Your task to perform on an android device: turn notification dots off Image 0: 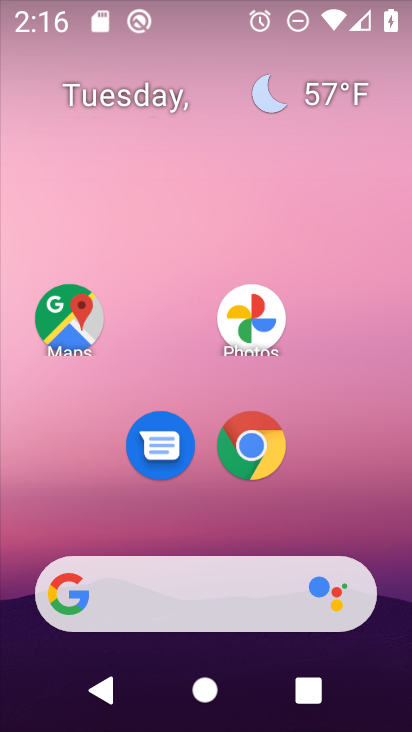
Step 0: drag from (389, 536) to (368, 146)
Your task to perform on an android device: turn notification dots off Image 1: 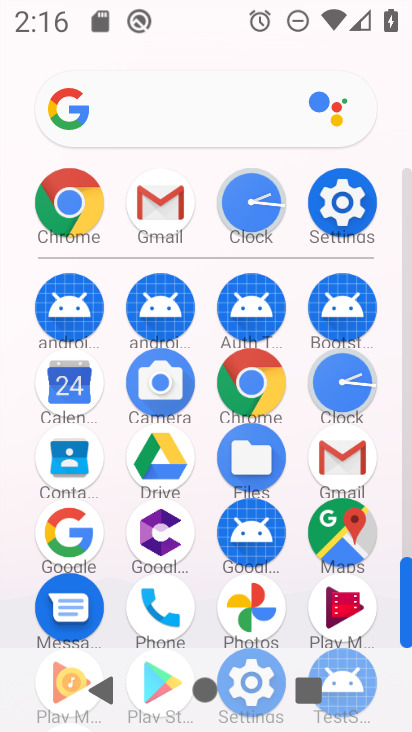
Step 1: click (338, 228)
Your task to perform on an android device: turn notification dots off Image 2: 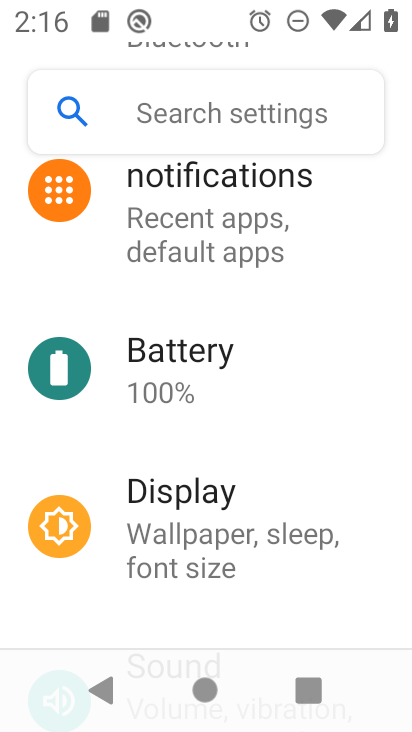
Step 2: drag from (362, 533) to (334, 305)
Your task to perform on an android device: turn notification dots off Image 3: 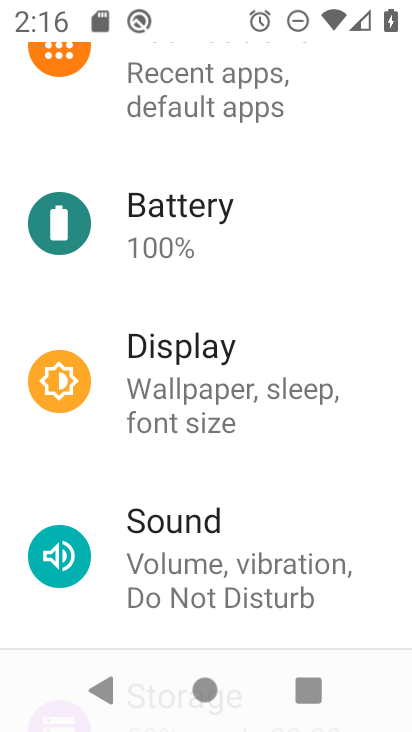
Step 3: drag from (359, 522) to (345, 335)
Your task to perform on an android device: turn notification dots off Image 4: 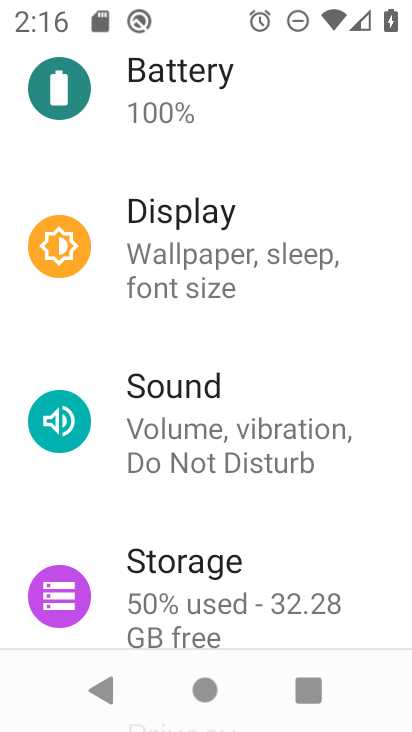
Step 4: drag from (372, 579) to (349, 399)
Your task to perform on an android device: turn notification dots off Image 5: 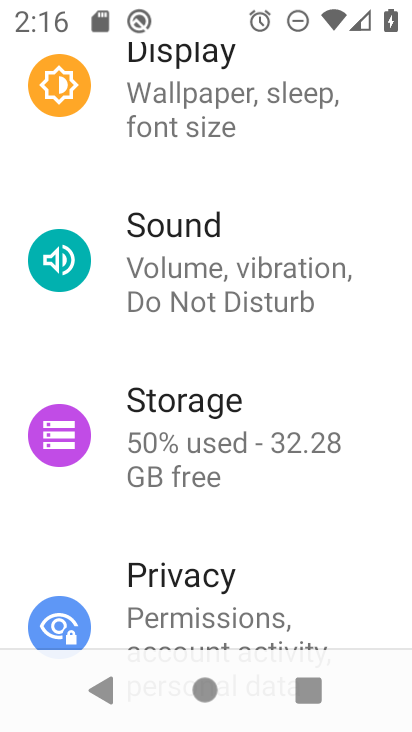
Step 5: drag from (349, 628) to (346, 455)
Your task to perform on an android device: turn notification dots off Image 6: 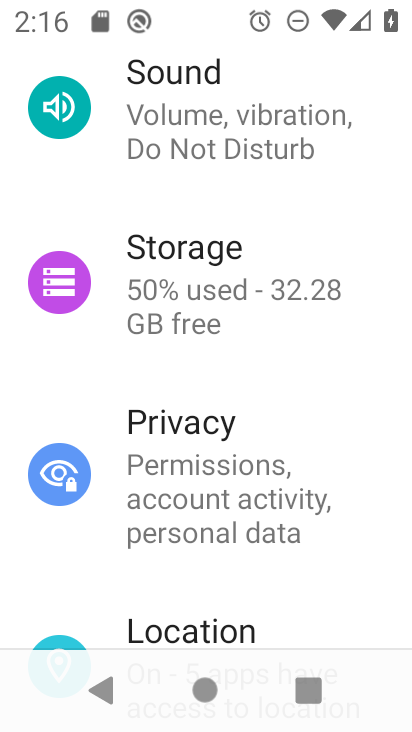
Step 6: drag from (375, 611) to (373, 465)
Your task to perform on an android device: turn notification dots off Image 7: 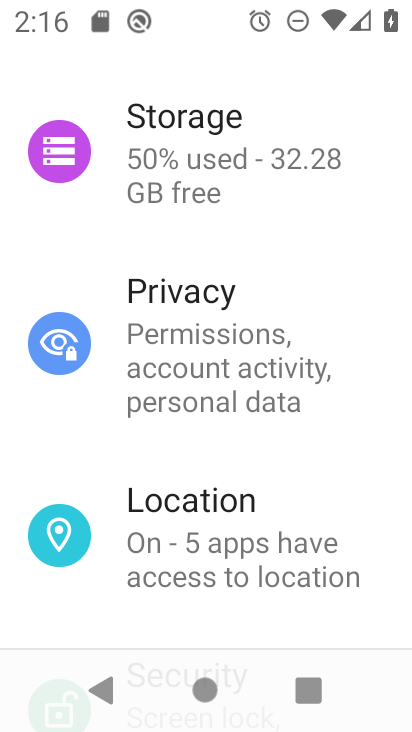
Step 7: drag from (374, 620) to (365, 463)
Your task to perform on an android device: turn notification dots off Image 8: 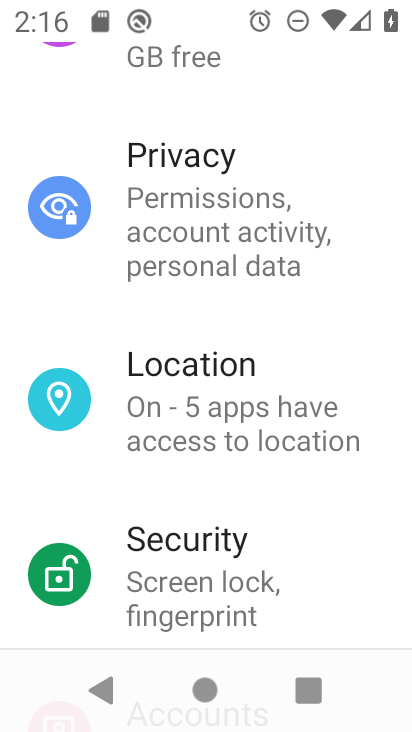
Step 8: drag from (354, 323) to (367, 498)
Your task to perform on an android device: turn notification dots off Image 9: 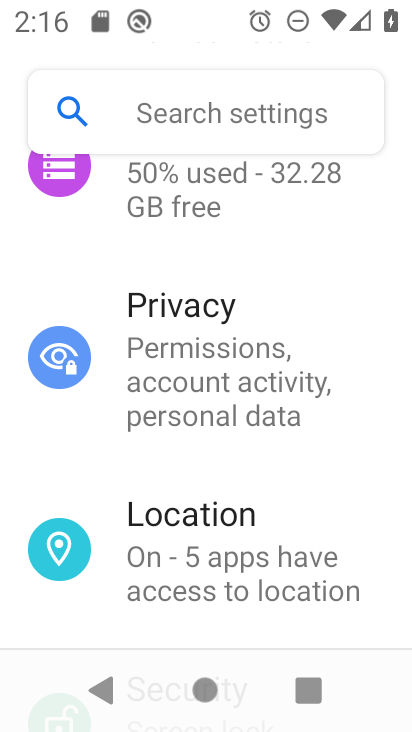
Step 9: drag from (372, 331) to (357, 474)
Your task to perform on an android device: turn notification dots off Image 10: 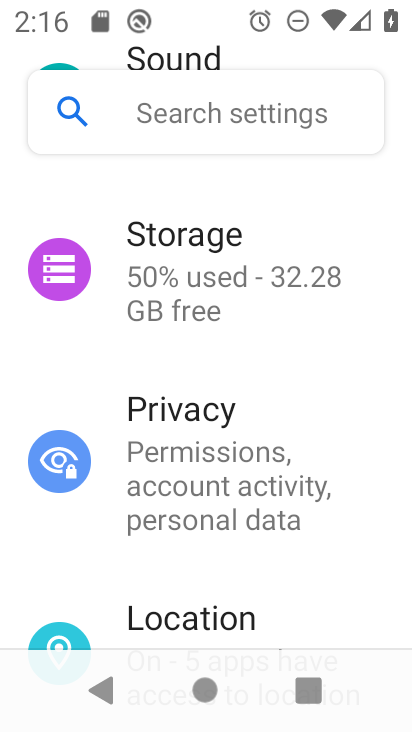
Step 10: drag from (357, 308) to (355, 418)
Your task to perform on an android device: turn notification dots off Image 11: 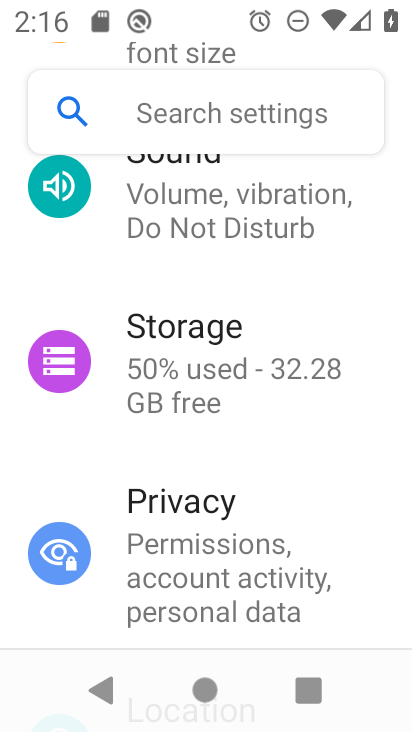
Step 11: drag from (355, 300) to (356, 441)
Your task to perform on an android device: turn notification dots off Image 12: 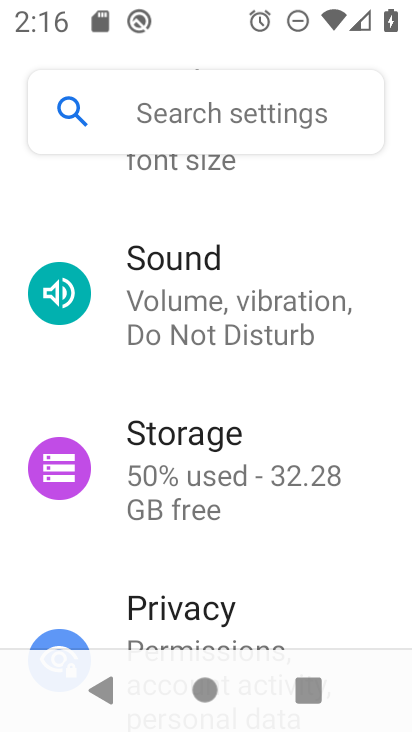
Step 12: drag from (359, 265) to (368, 412)
Your task to perform on an android device: turn notification dots off Image 13: 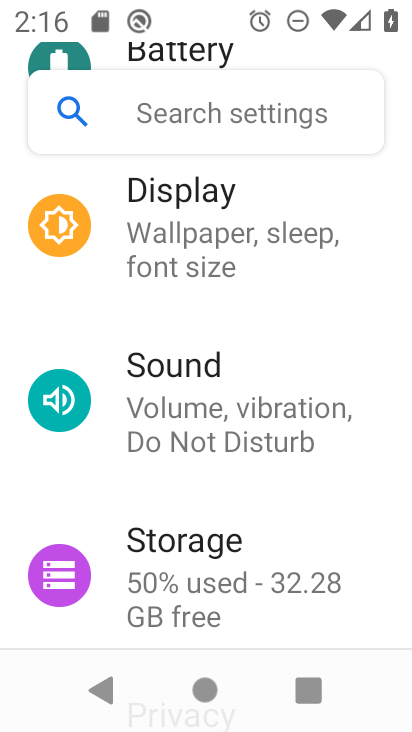
Step 13: drag from (365, 279) to (363, 409)
Your task to perform on an android device: turn notification dots off Image 14: 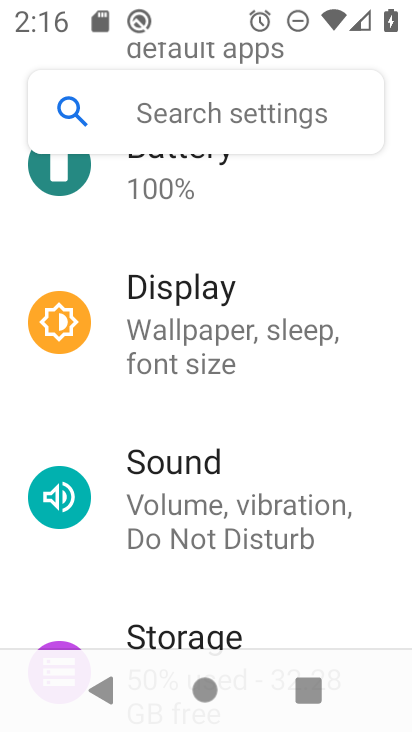
Step 14: drag from (366, 276) to (362, 402)
Your task to perform on an android device: turn notification dots off Image 15: 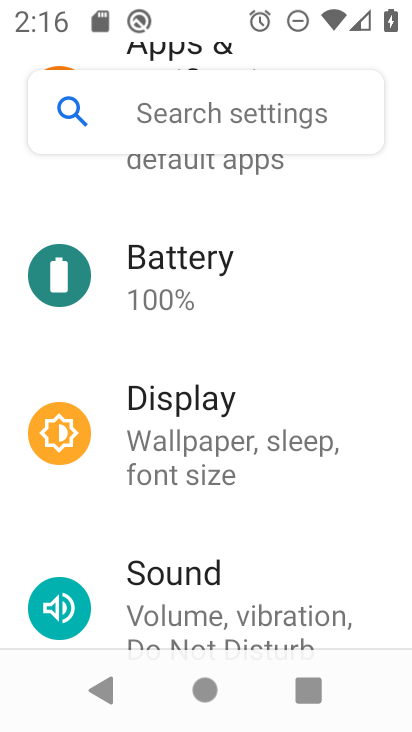
Step 15: drag from (348, 296) to (347, 453)
Your task to perform on an android device: turn notification dots off Image 16: 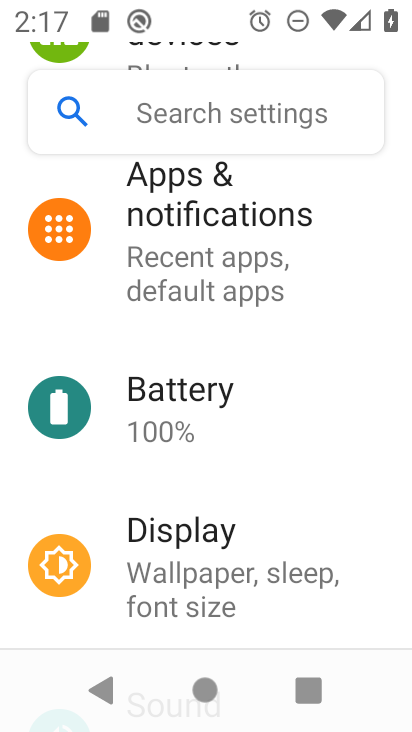
Step 16: click (288, 218)
Your task to perform on an android device: turn notification dots off Image 17: 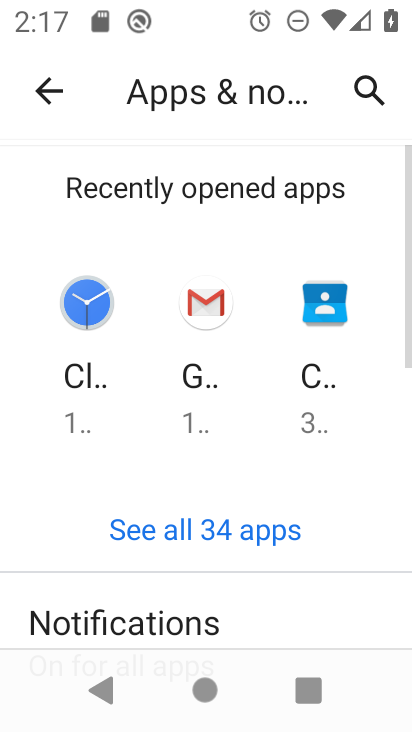
Step 17: drag from (301, 614) to (302, 344)
Your task to perform on an android device: turn notification dots off Image 18: 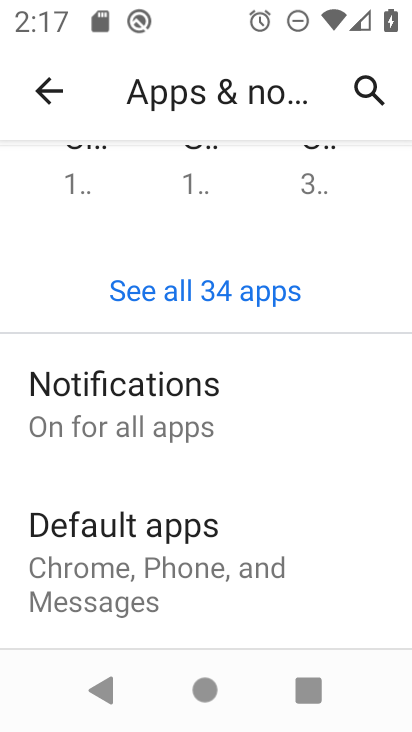
Step 18: drag from (306, 583) to (299, 466)
Your task to perform on an android device: turn notification dots off Image 19: 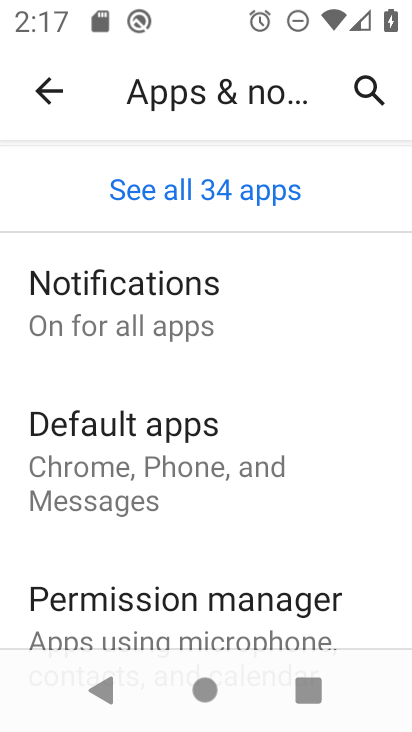
Step 19: click (200, 327)
Your task to perform on an android device: turn notification dots off Image 20: 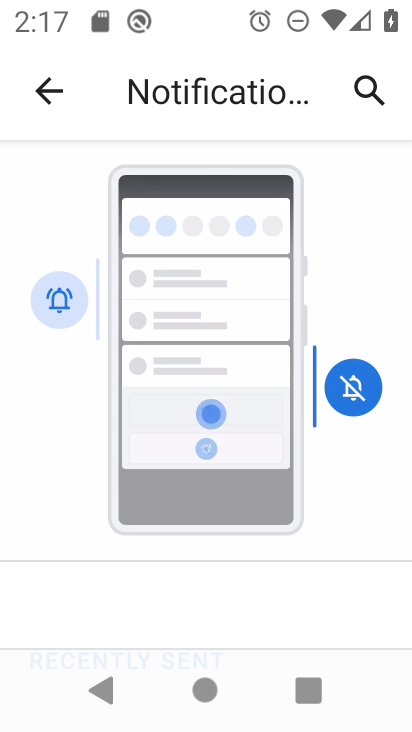
Step 20: drag from (357, 593) to (357, 375)
Your task to perform on an android device: turn notification dots off Image 21: 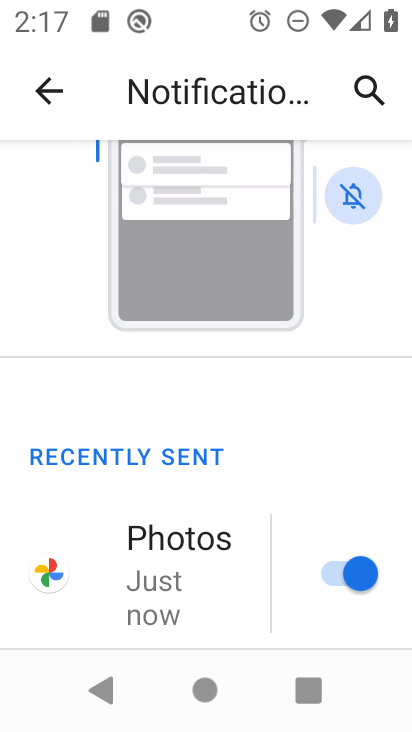
Step 21: drag from (320, 635) to (292, 439)
Your task to perform on an android device: turn notification dots off Image 22: 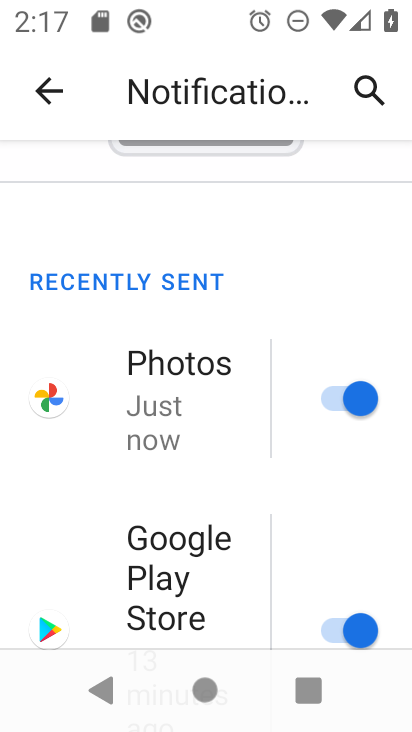
Step 22: drag from (290, 597) to (275, 443)
Your task to perform on an android device: turn notification dots off Image 23: 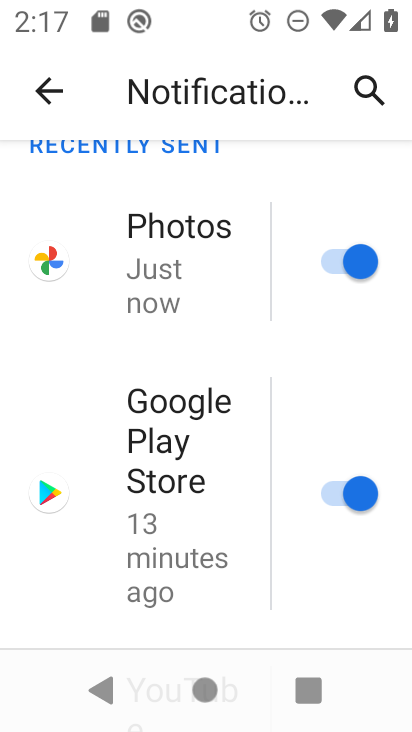
Step 23: drag from (285, 610) to (287, 465)
Your task to perform on an android device: turn notification dots off Image 24: 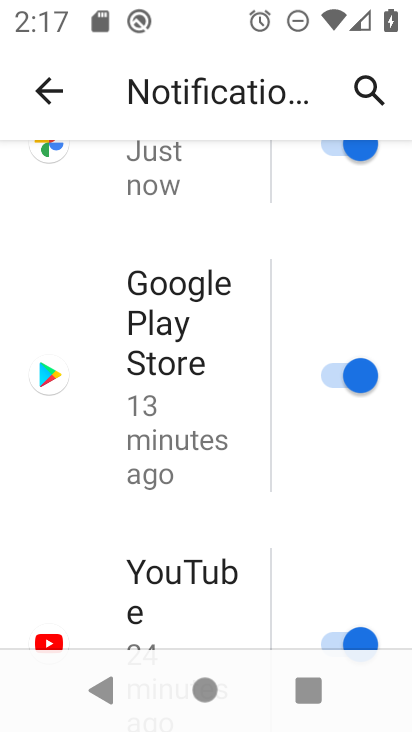
Step 24: drag from (296, 618) to (285, 465)
Your task to perform on an android device: turn notification dots off Image 25: 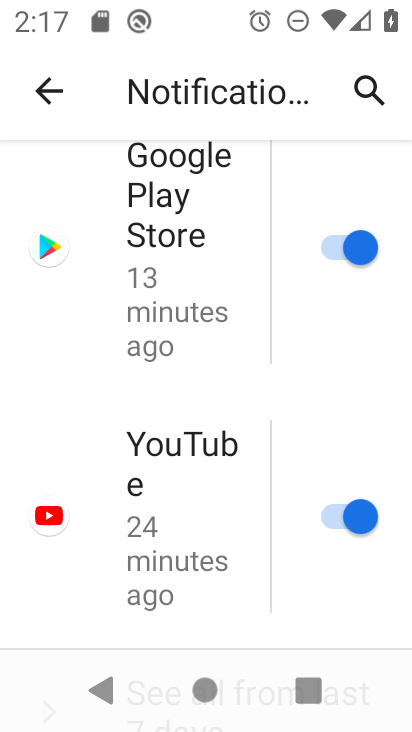
Step 25: drag from (280, 615) to (266, 453)
Your task to perform on an android device: turn notification dots off Image 26: 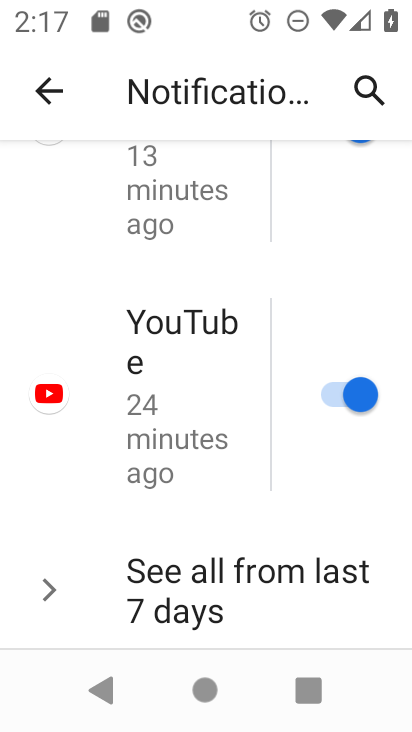
Step 26: drag from (256, 639) to (254, 463)
Your task to perform on an android device: turn notification dots off Image 27: 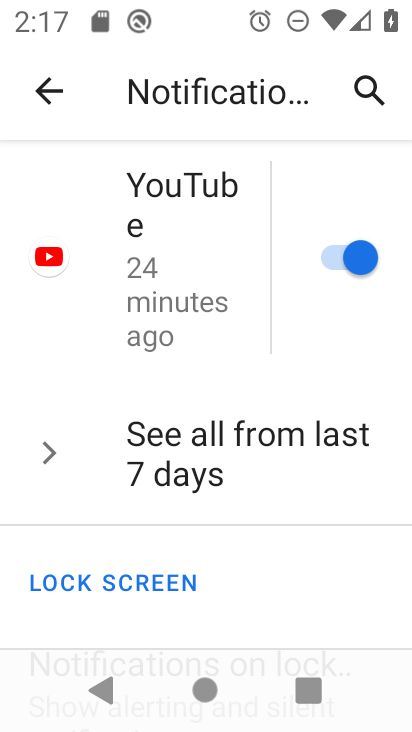
Step 27: drag from (264, 631) to (265, 496)
Your task to perform on an android device: turn notification dots off Image 28: 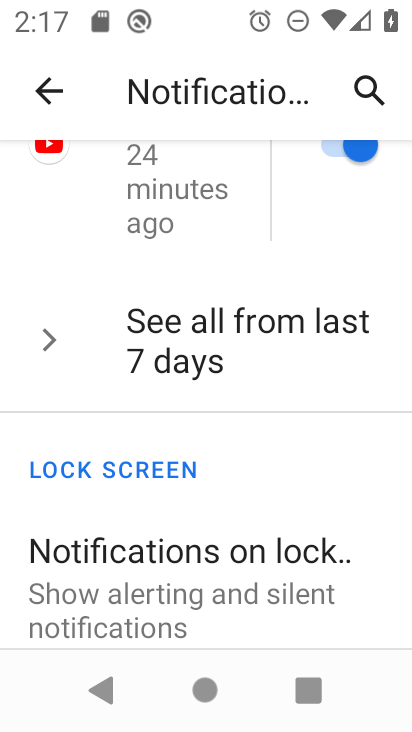
Step 28: drag from (281, 612) to (281, 484)
Your task to perform on an android device: turn notification dots off Image 29: 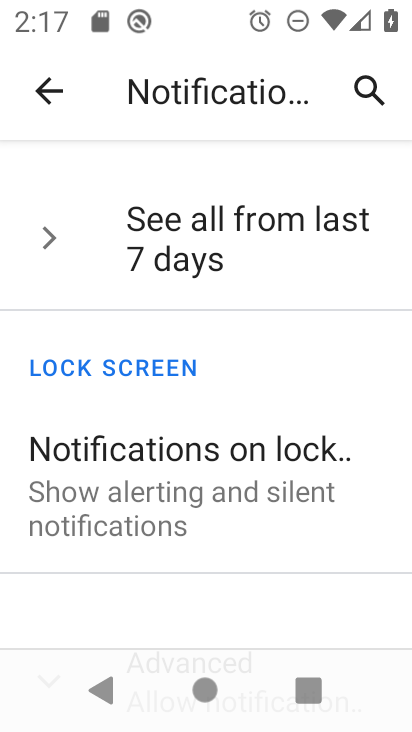
Step 29: drag from (308, 579) to (309, 385)
Your task to perform on an android device: turn notification dots off Image 30: 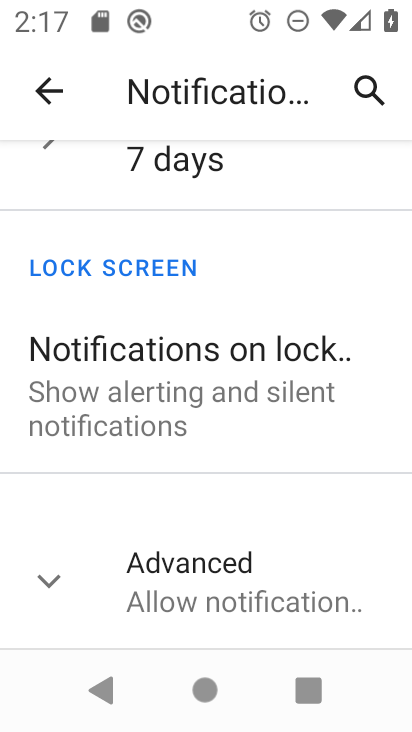
Step 30: click (304, 590)
Your task to perform on an android device: turn notification dots off Image 31: 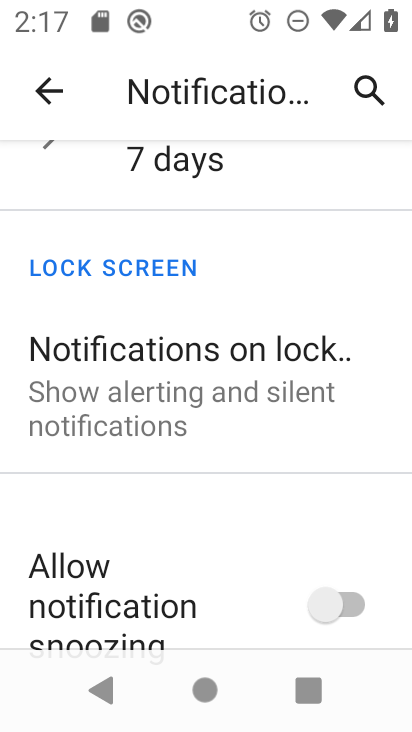
Step 31: task complete